Your task to perform on an android device: create a new album in the google photos Image 0: 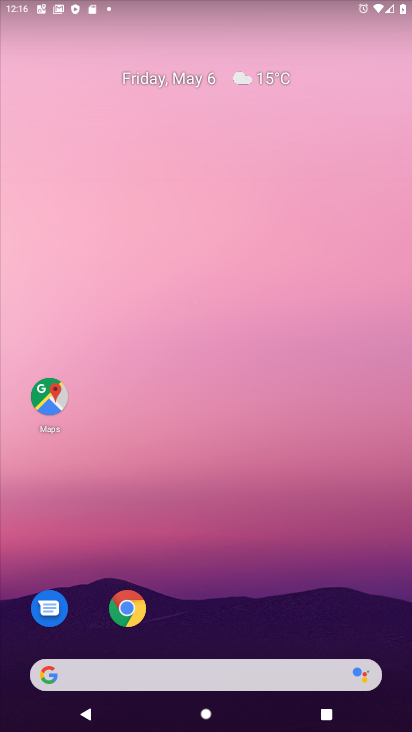
Step 0: drag from (276, 633) to (268, 194)
Your task to perform on an android device: create a new album in the google photos Image 1: 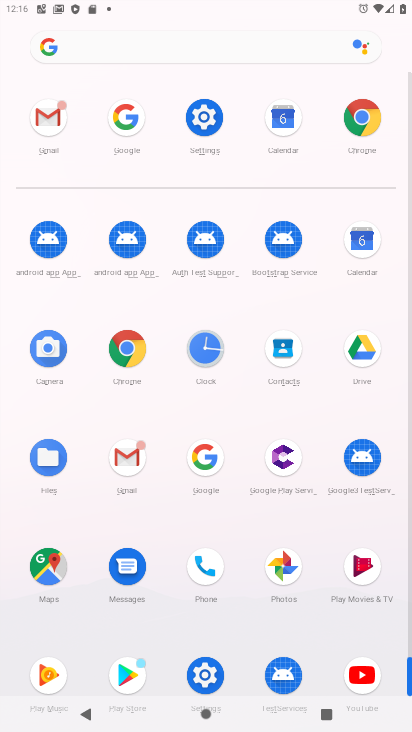
Step 1: click (289, 575)
Your task to perform on an android device: create a new album in the google photos Image 2: 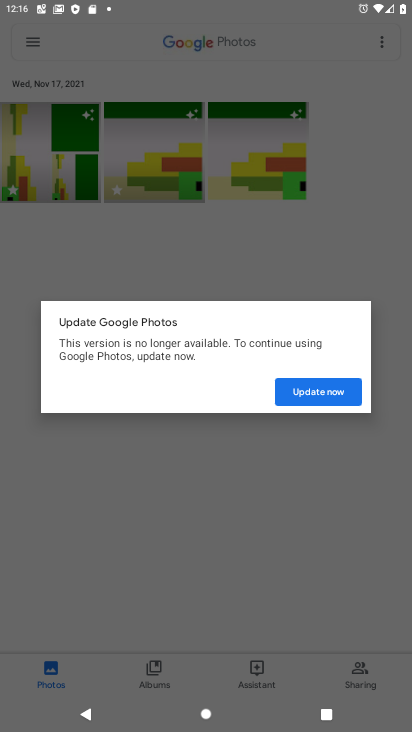
Step 2: click (328, 397)
Your task to perform on an android device: create a new album in the google photos Image 3: 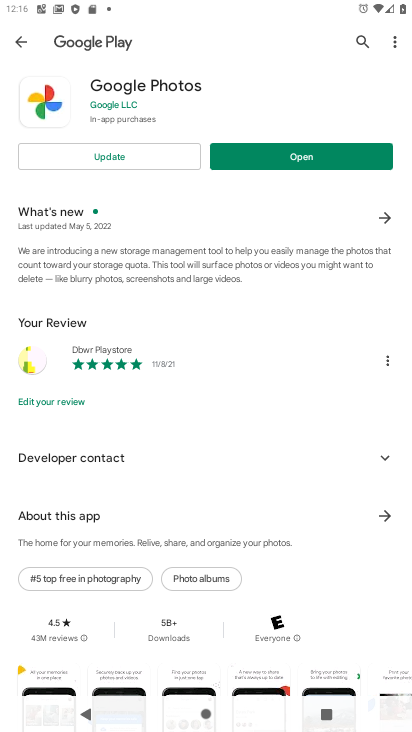
Step 3: click (144, 153)
Your task to perform on an android device: create a new album in the google photos Image 4: 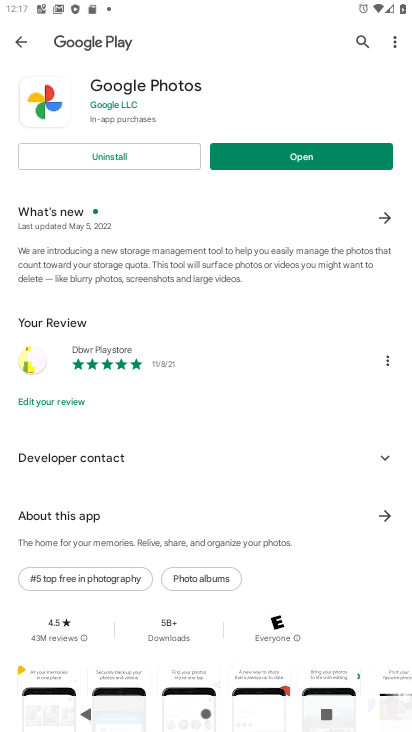
Step 4: click (239, 154)
Your task to perform on an android device: create a new album in the google photos Image 5: 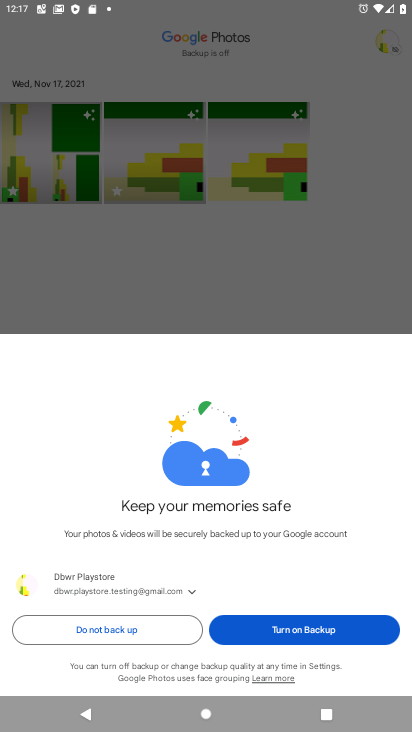
Step 5: click (283, 631)
Your task to perform on an android device: create a new album in the google photos Image 6: 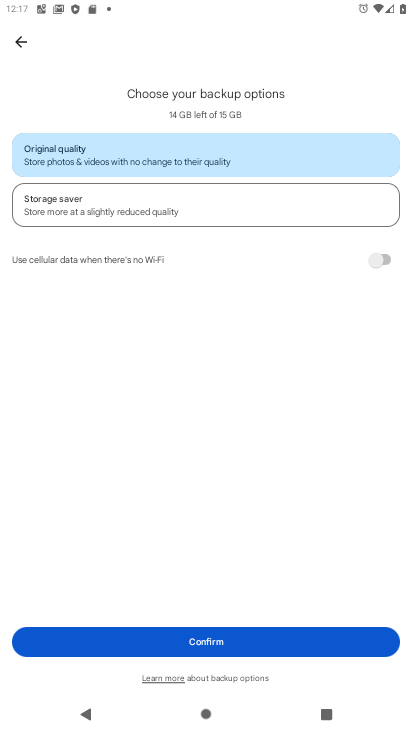
Step 6: click (342, 649)
Your task to perform on an android device: create a new album in the google photos Image 7: 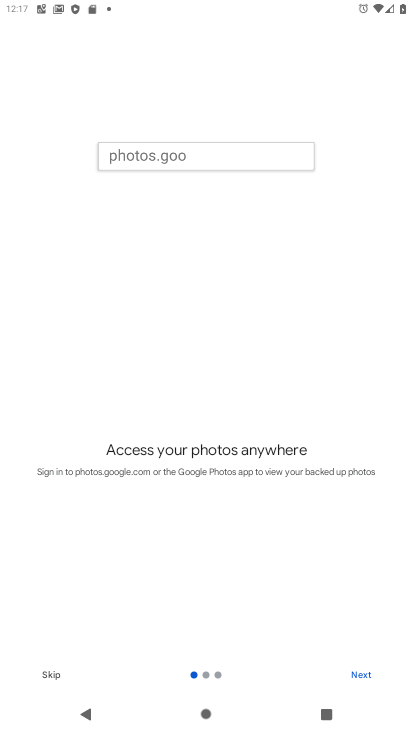
Step 7: click (363, 674)
Your task to perform on an android device: create a new album in the google photos Image 8: 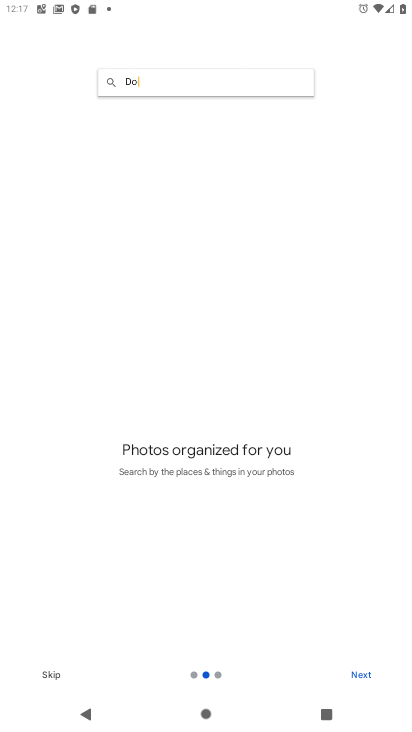
Step 8: click (363, 674)
Your task to perform on an android device: create a new album in the google photos Image 9: 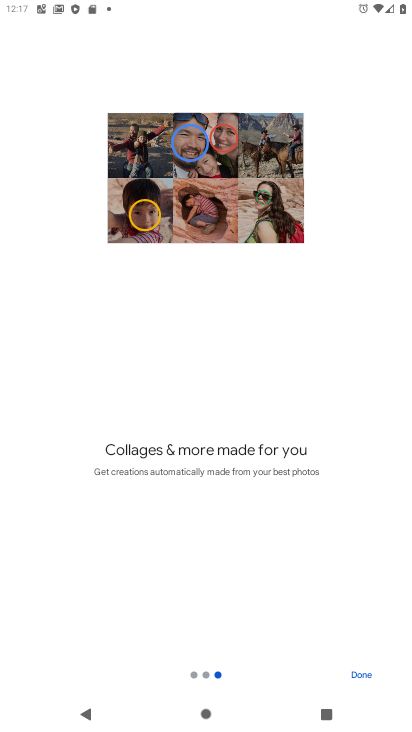
Step 9: click (363, 674)
Your task to perform on an android device: create a new album in the google photos Image 10: 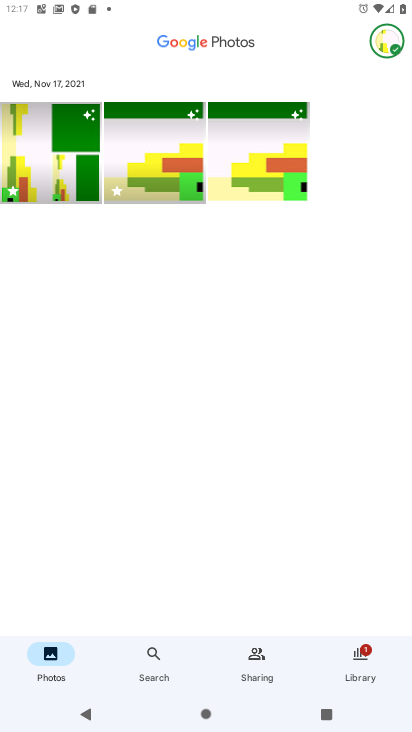
Step 10: click (358, 650)
Your task to perform on an android device: create a new album in the google photos Image 11: 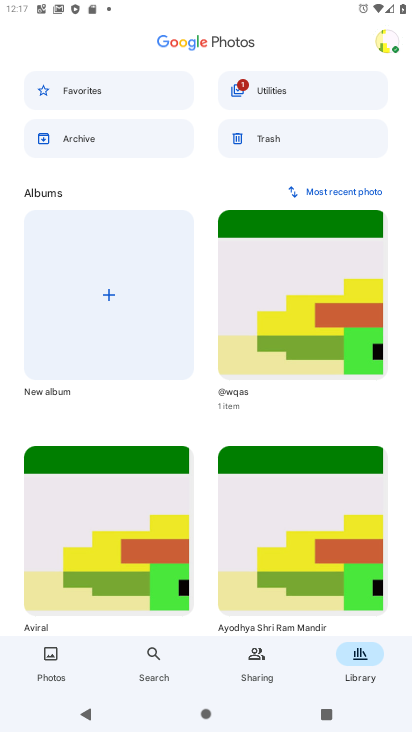
Step 11: click (118, 299)
Your task to perform on an android device: create a new album in the google photos Image 12: 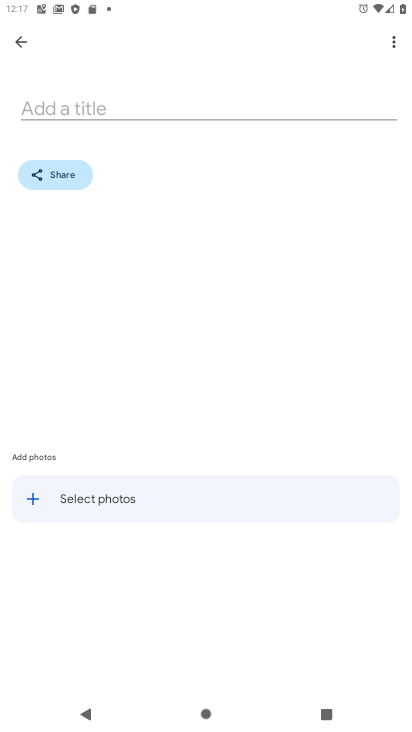
Step 12: click (93, 100)
Your task to perform on an android device: create a new album in the google photos Image 13: 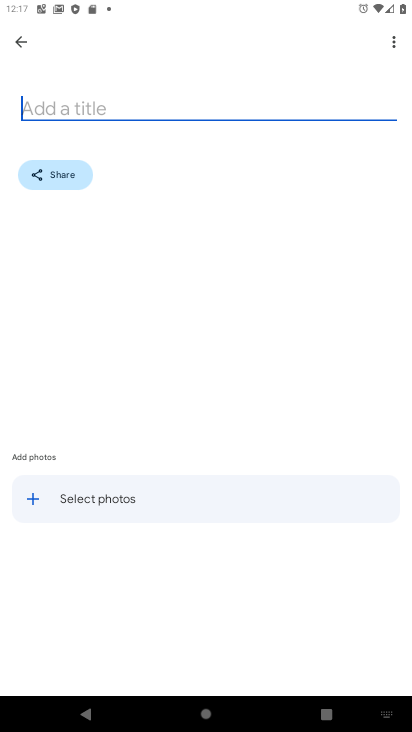
Step 13: type "perfect"
Your task to perform on an android device: create a new album in the google photos Image 14: 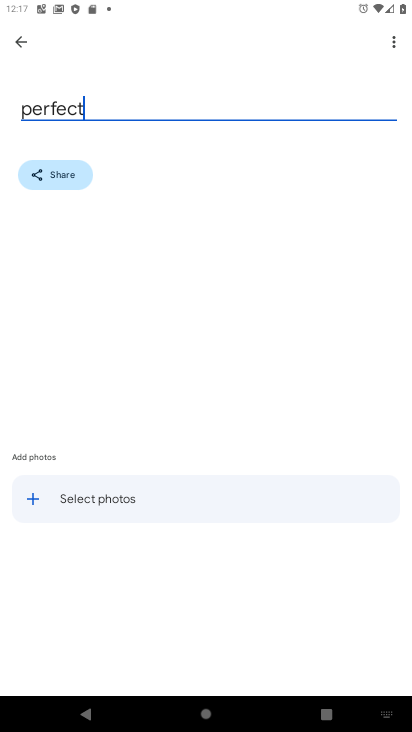
Step 14: click (86, 495)
Your task to perform on an android device: create a new album in the google photos Image 15: 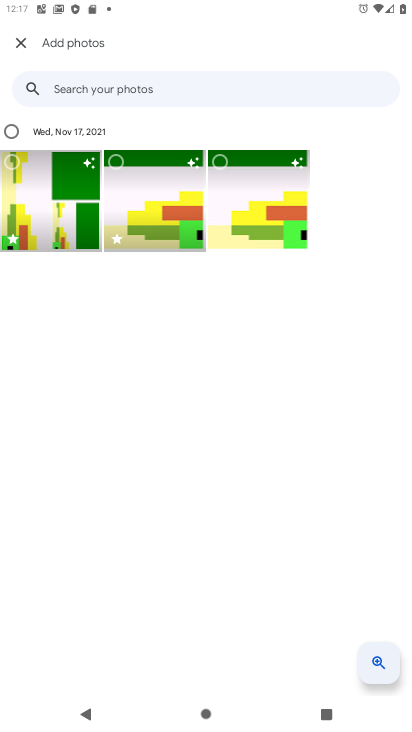
Step 15: click (64, 202)
Your task to perform on an android device: create a new album in the google photos Image 16: 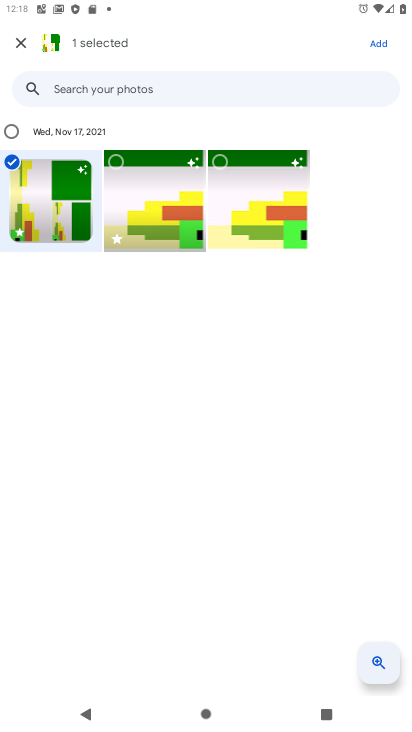
Step 16: click (376, 44)
Your task to perform on an android device: create a new album in the google photos Image 17: 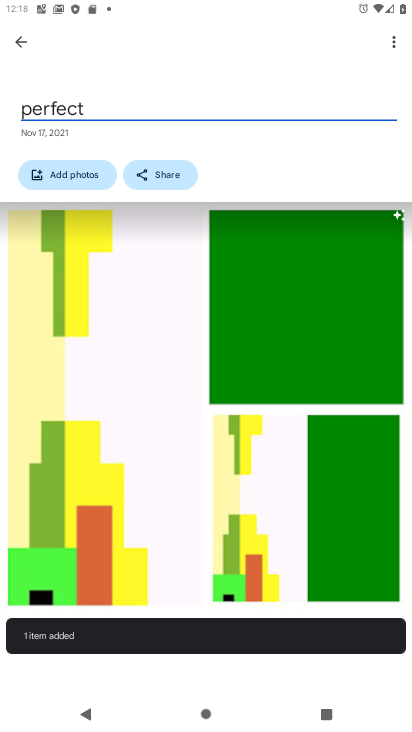
Step 17: task complete